Your task to perform on an android device: Go to Maps Image 0: 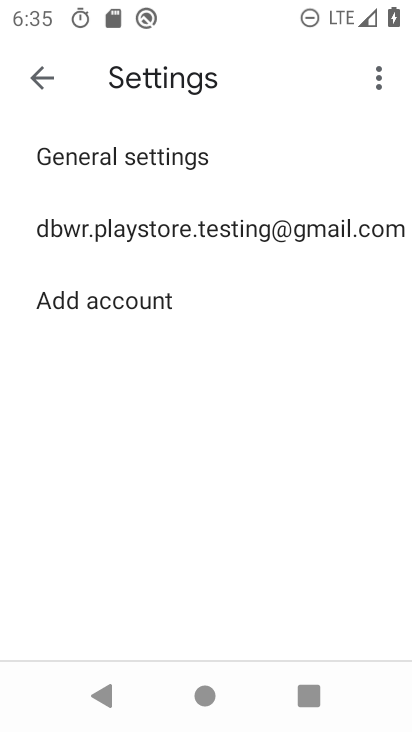
Step 0: press home button
Your task to perform on an android device: Go to Maps Image 1: 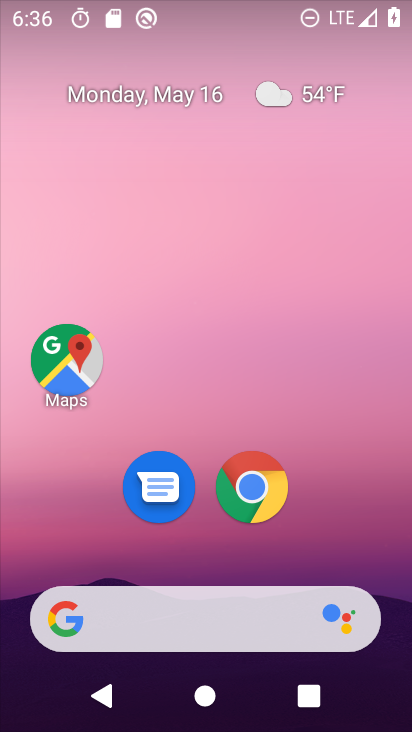
Step 1: click (39, 369)
Your task to perform on an android device: Go to Maps Image 2: 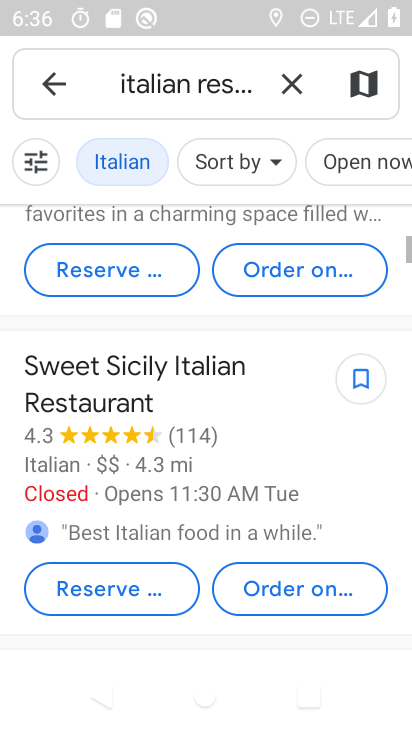
Step 2: click (291, 97)
Your task to perform on an android device: Go to Maps Image 3: 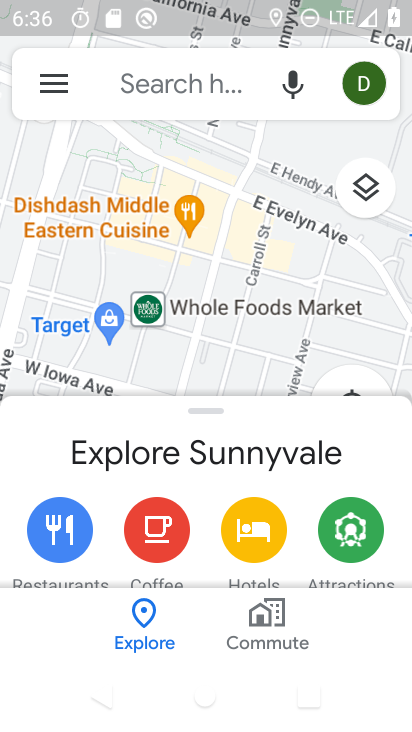
Step 3: task complete